Your task to perform on an android device: Show me some nice wallpapers for my phone Image 0: 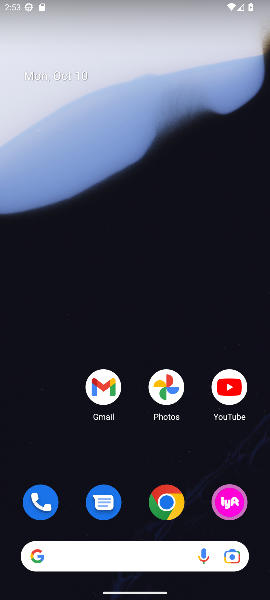
Step 0: click (173, 499)
Your task to perform on an android device: Show me some nice wallpapers for my phone Image 1: 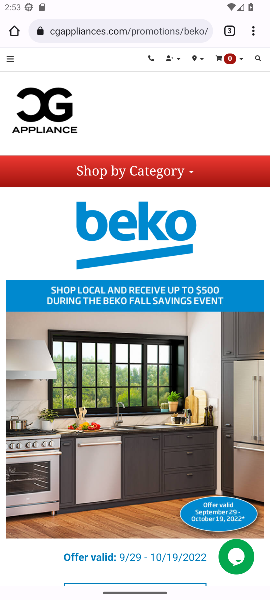
Step 1: click (89, 33)
Your task to perform on an android device: Show me some nice wallpapers for my phone Image 2: 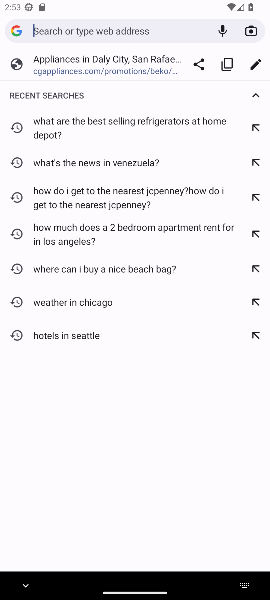
Step 2: type "Show me some nice wallpapers for my phone"
Your task to perform on an android device: Show me some nice wallpapers for my phone Image 3: 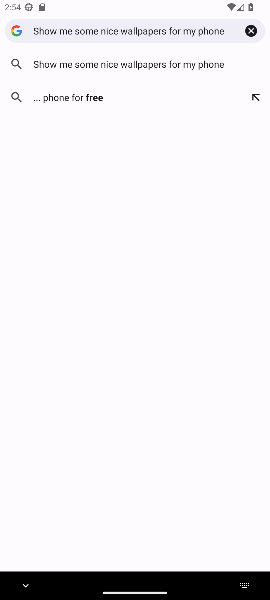
Step 3: click (180, 57)
Your task to perform on an android device: Show me some nice wallpapers for my phone Image 4: 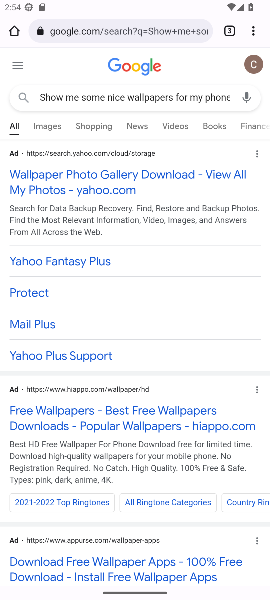
Step 4: click (93, 187)
Your task to perform on an android device: Show me some nice wallpapers for my phone Image 5: 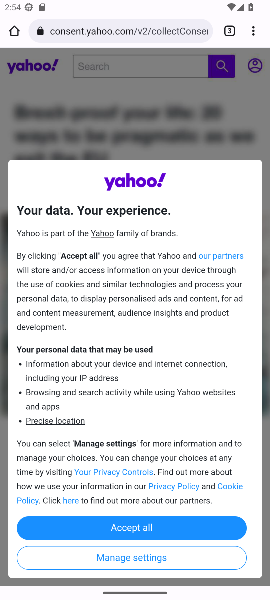
Step 5: task complete